Your task to perform on an android device: Open Youtube and go to "Your channel" Image 0: 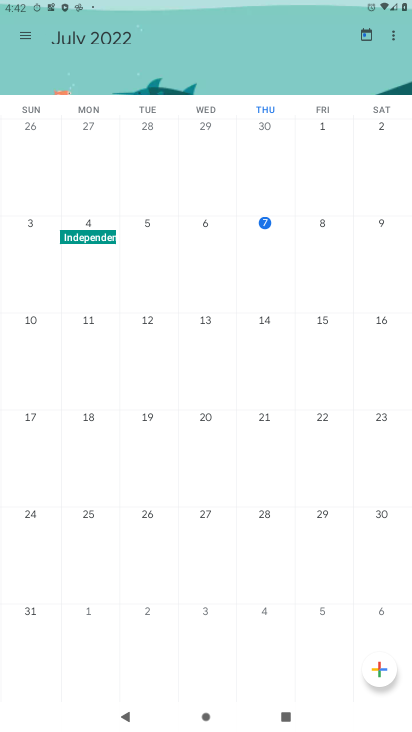
Step 0: drag from (194, 494) to (191, 23)
Your task to perform on an android device: Open Youtube and go to "Your channel" Image 1: 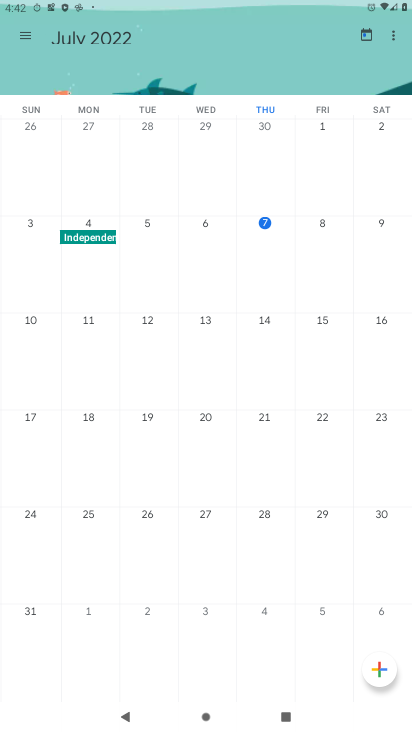
Step 1: press home button
Your task to perform on an android device: Open Youtube and go to "Your channel" Image 2: 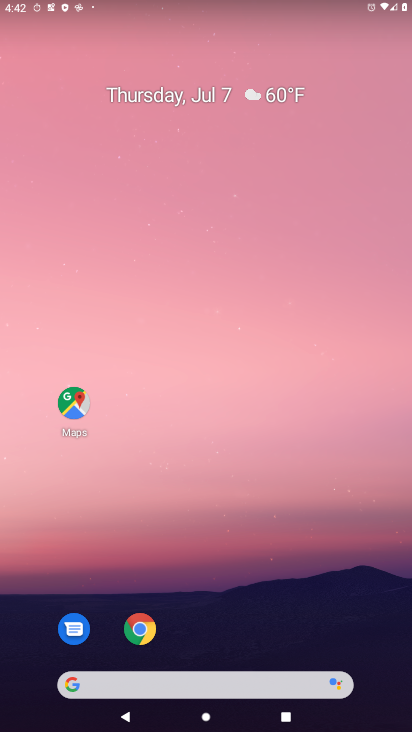
Step 2: drag from (185, 640) to (183, 35)
Your task to perform on an android device: Open Youtube and go to "Your channel" Image 3: 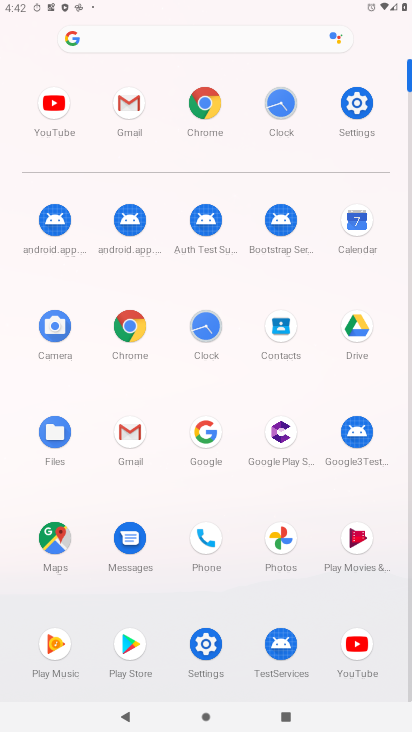
Step 3: click (361, 656)
Your task to perform on an android device: Open Youtube and go to "Your channel" Image 4: 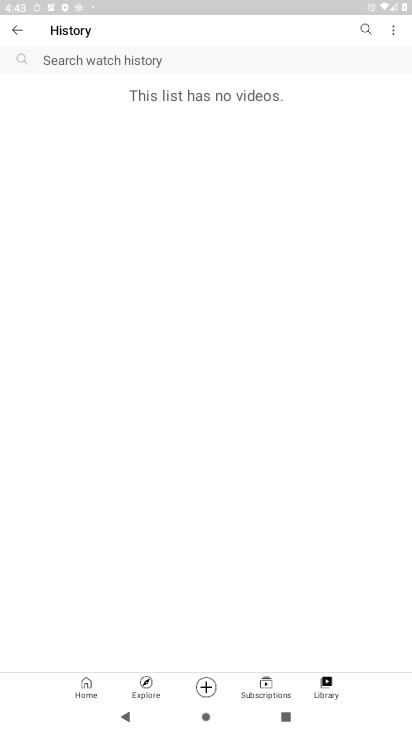
Step 4: click (81, 693)
Your task to perform on an android device: Open Youtube and go to "Your channel" Image 5: 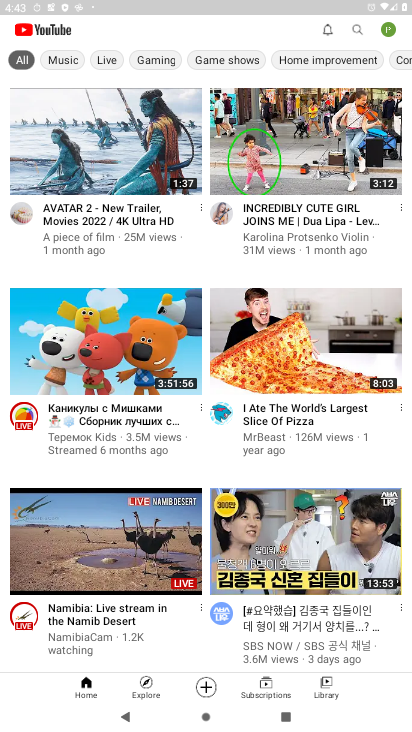
Step 5: click (385, 28)
Your task to perform on an android device: Open Youtube and go to "Your channel" Image 6: 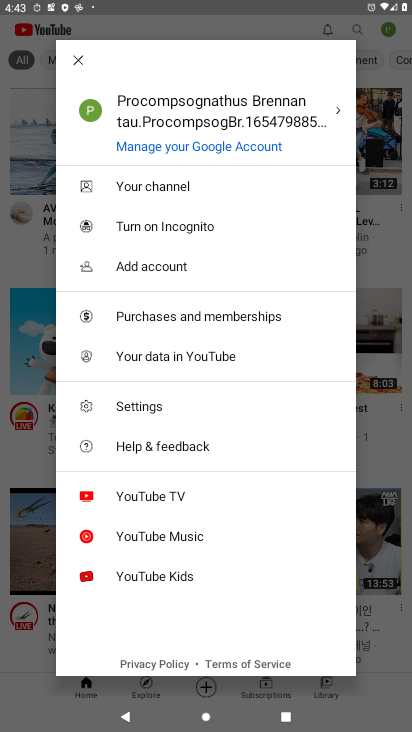
Step 6: click (179, 192)
Your task to perform on an android device: Open Youtube and go to "Your channel" Image 7: 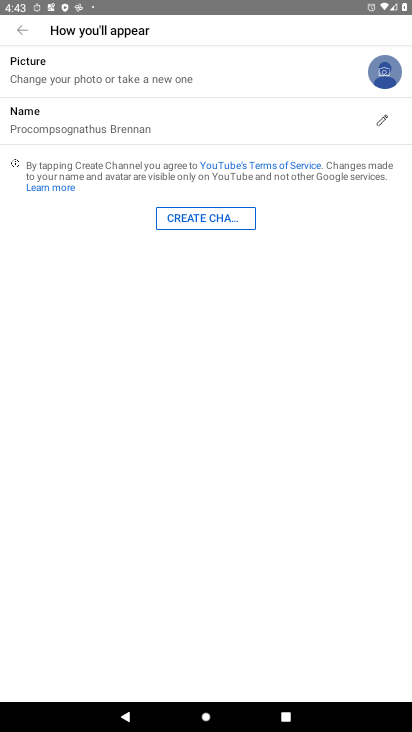
Step 7: task complete